Your task to perform on an android device: toggle notification dots Image 0: 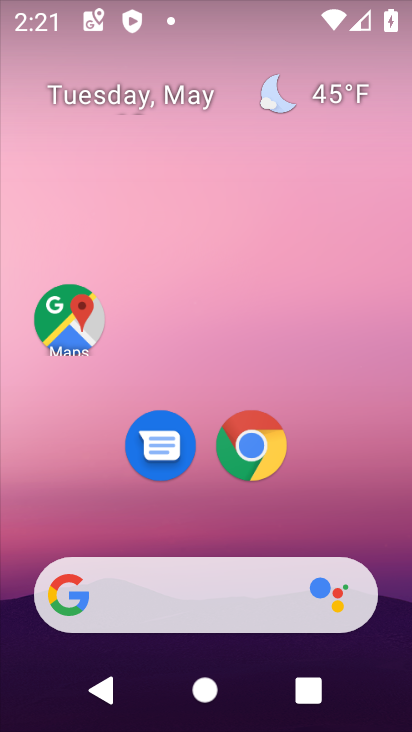
Step 0: drag from (263, 540) to (266, 68)
Your task to perform on an android device: toggle notification dots Image 1: 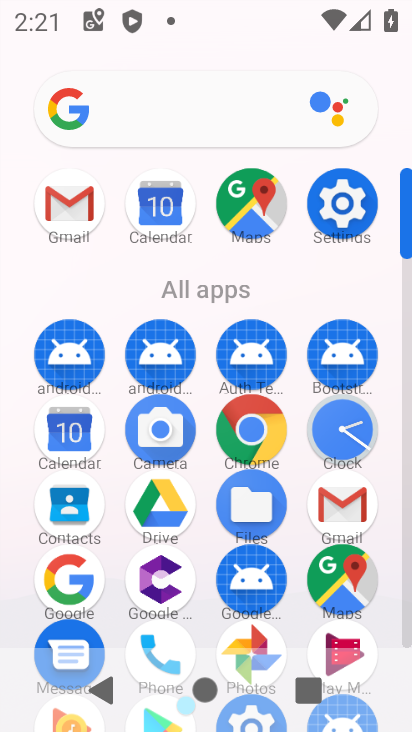
Step 1: click (344, 209)
Your task to perform on an android device: toggle notification dots Image 2: 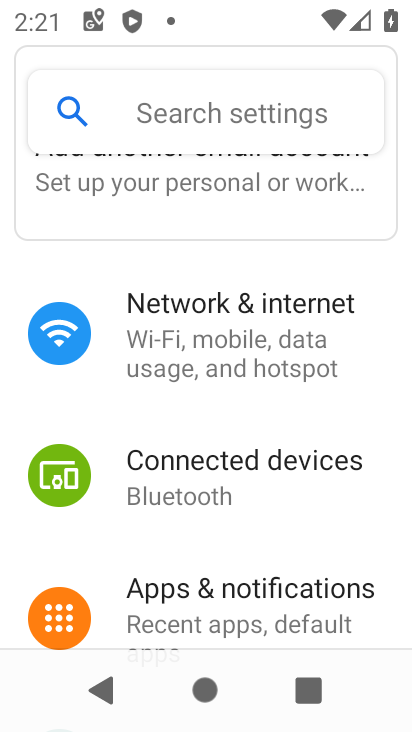
Step 2: click (224, 615)
Your task to perform on an android device: toggle notification dots Image 3: 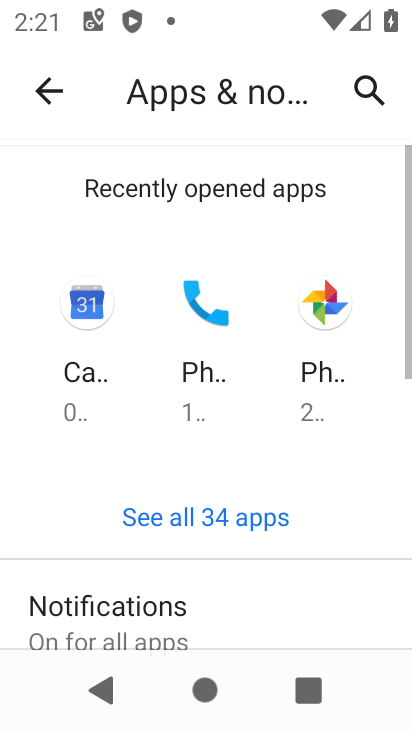
Step 3: drag from (184, 615) to (299, 215)
Your task to perform on an android device: toggle notification dots Image 4: 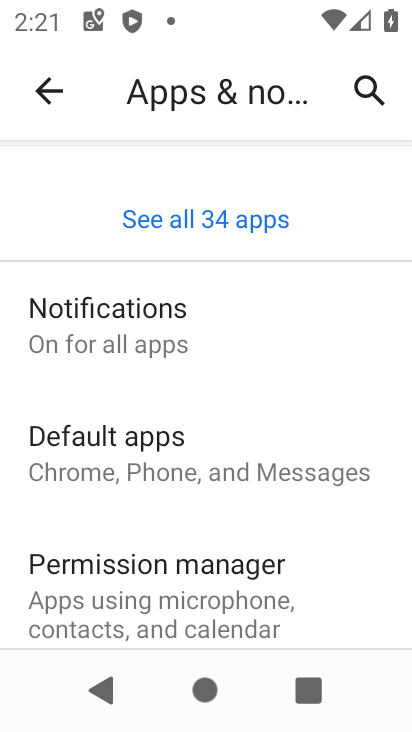
Step 4: click (164, 330)
Your task to perform on an android device: toggle notification dots Image 5: 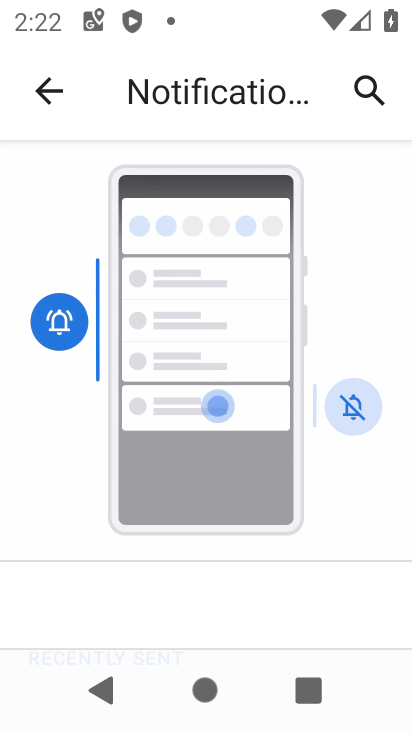
Step 5: drag from (187, 573) to (319, 40)
Your task to perform on an android device: toggle notification dots Image 6: 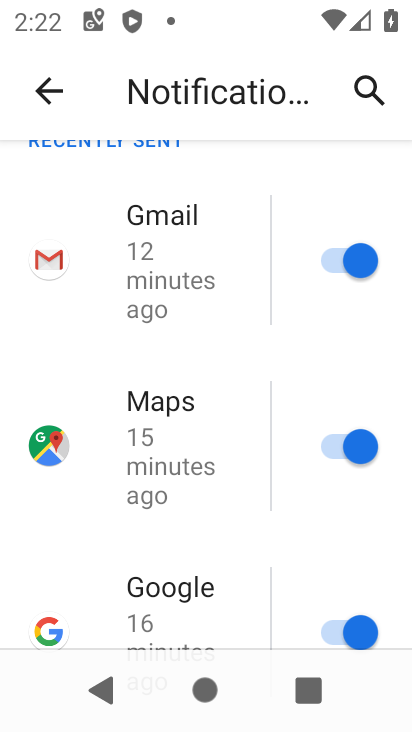
Step 6: drag from (175, 586) to (263, 100)
Your task to perform on an android device: toggle notification dots Image 7: 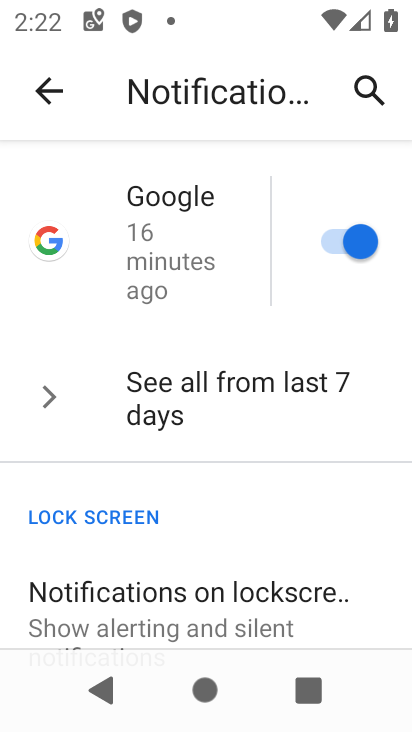
Step 7: drag from (192, 573) to (252, 89)
Your task to perform on an android device: toggle notification dots Image 8: 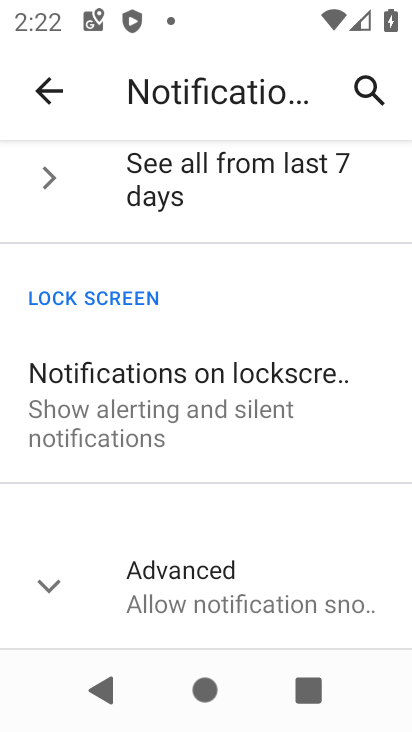
Step 8: click (194, 572)
Your task to perform on an android device: toggle notification dots Image 9: 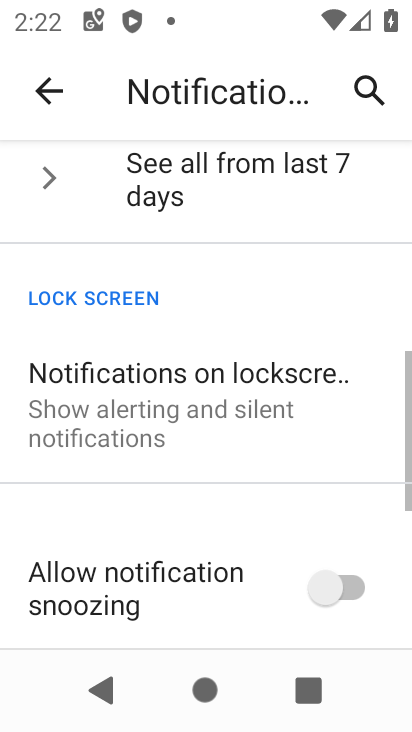
Step 9: drag from (194, 572) to (266, 85)
Your task to perform on an android device: toggle notification dots Image 10: 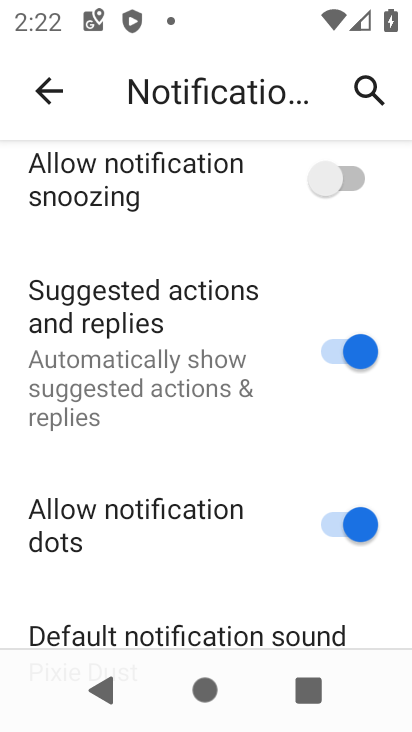
Step 10: click (367, 513)
Your task to perform on an android device: toggle notification dots Image 11: 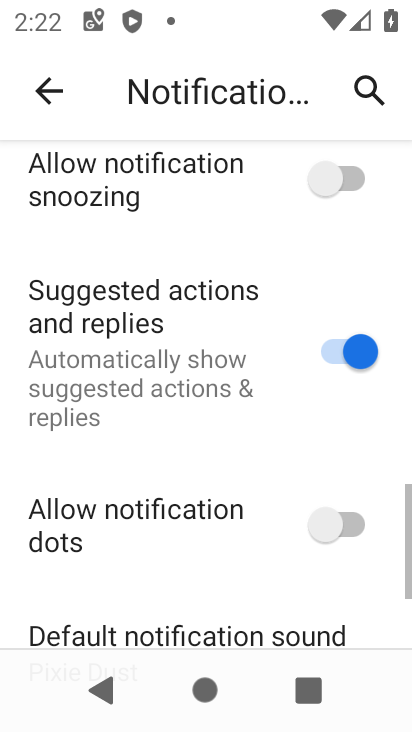
Step 11: task complete